Your task to perform on an android device: turn on translation in the chrome app Image 0: 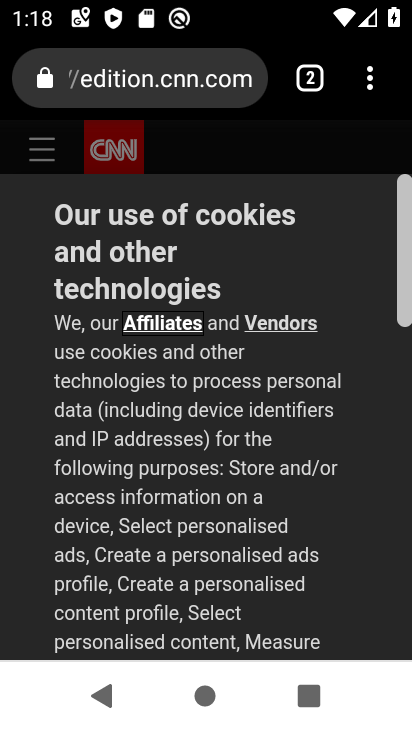
Step 0: press back button
Your task to perform on an android device: turn on translation in the chrome app Image 1: 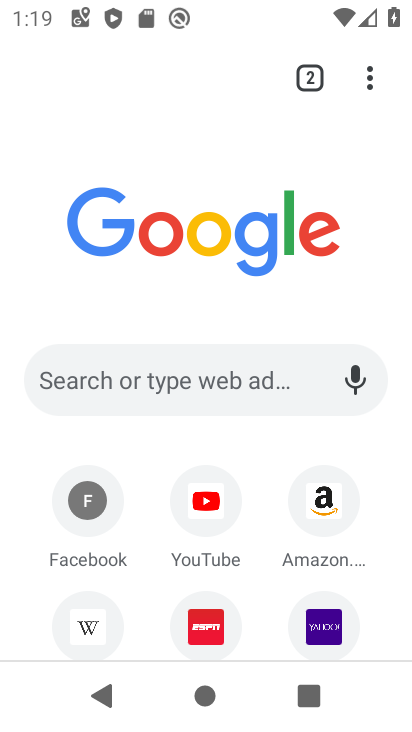
Step 1: drag from (368, 84) to (108, 543)
Your task to perform on an android device: turn on translation in the chrome app Image 2: 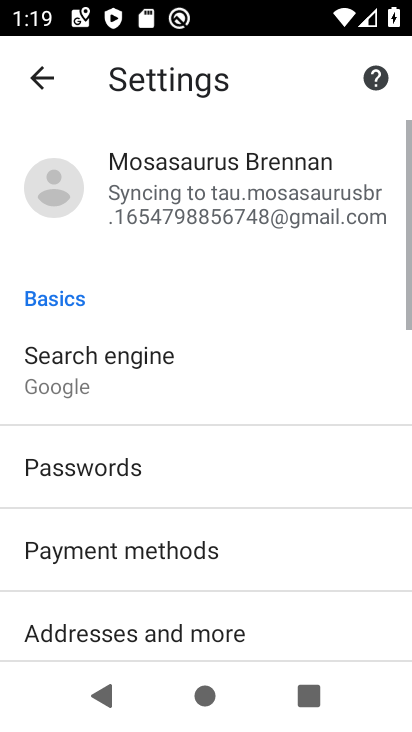
Step 2: drag from (139, 621) to (209, 17)
Your task to perform on an android device: turn on translation in the chrome app Image 3: 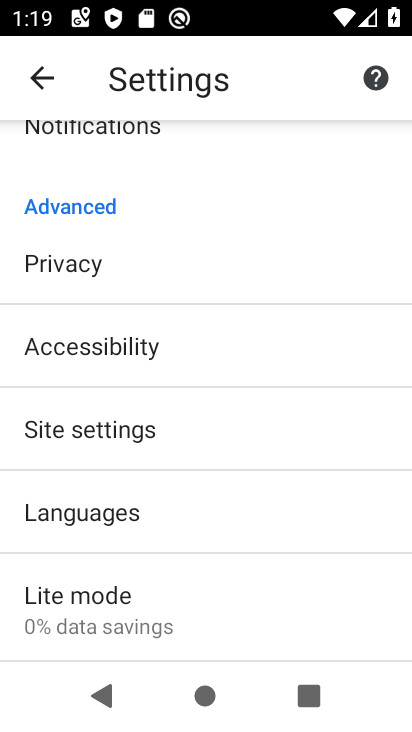
Step 3: click (88, 524)
Your task to perform on an android device: turn on translation in the chrome app Image 4: 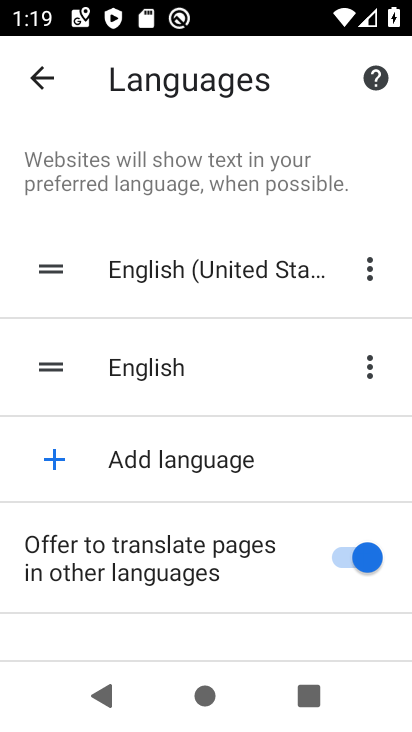
Step 4: task complete